Your task to perform on an android device: Show the shopping cart on ebay. Add "dell alienware" to the cart on ebay Image 0: 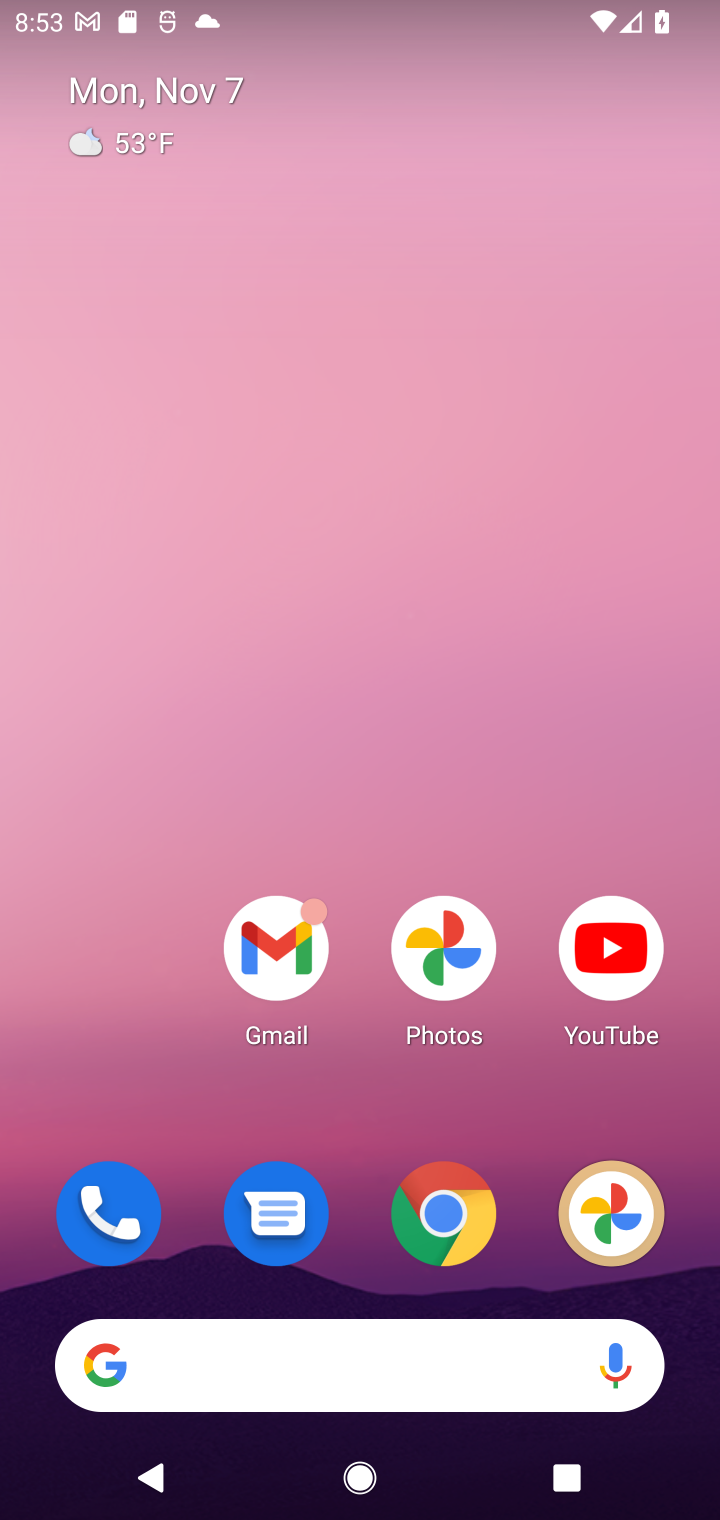
Step 0: click (434, 1244)
Your task to perform on an android device: Show the shopping cart on ebay. Add "dell alienware" to the cart on ebay Image 1: 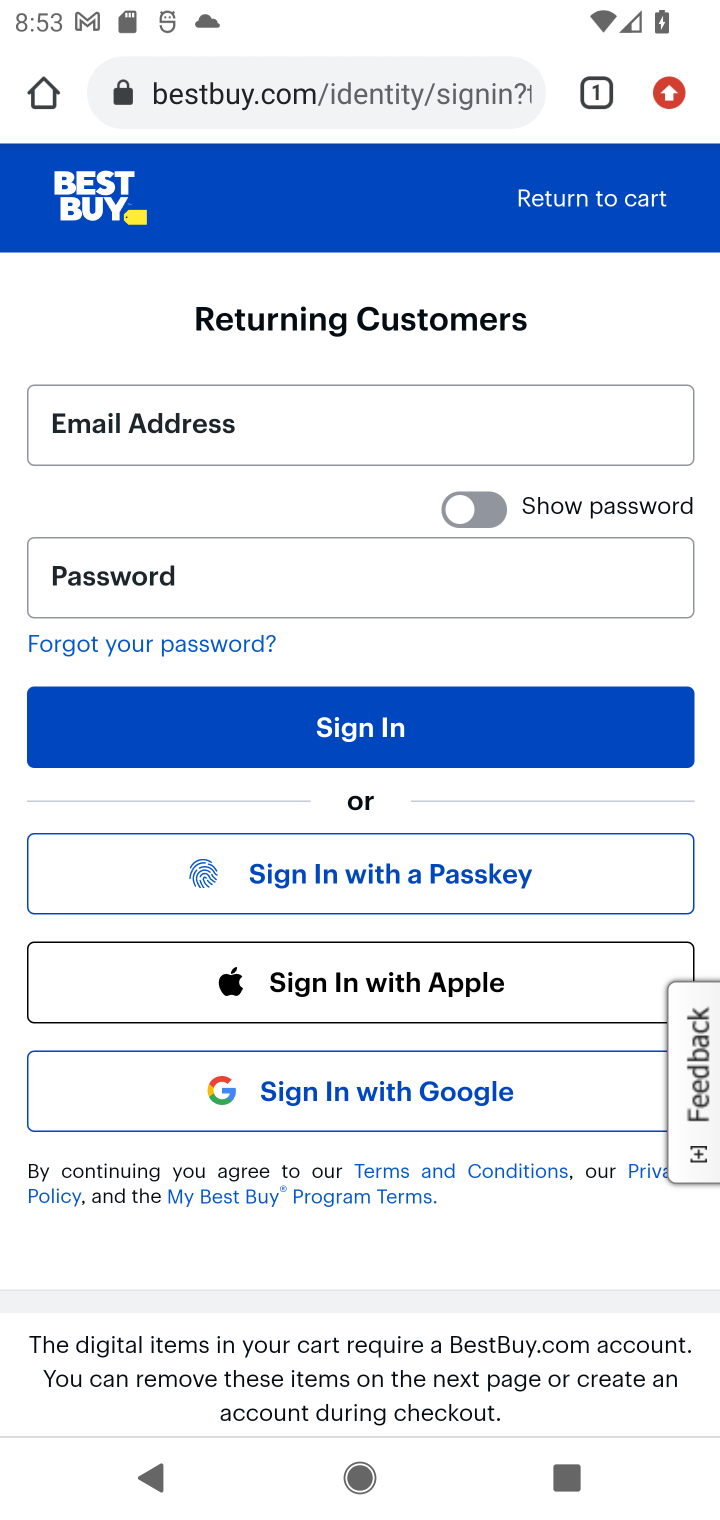
Step 1: click (324, 80)
Your task to perform on an android device: Show the shopping cart on ebay. Add "dell alienware" to the cart on ebay Image 2: 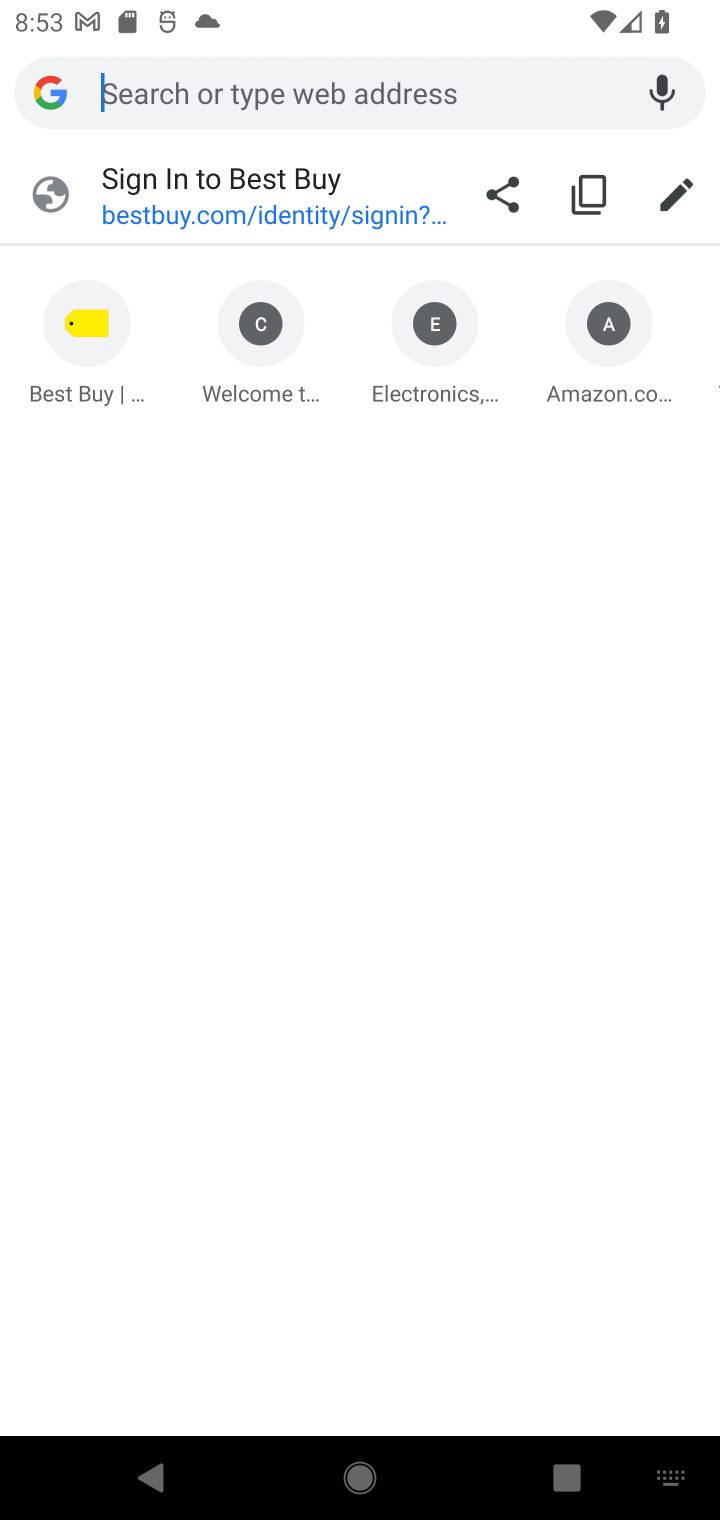
Step 2: type "ebay.com"
Your task to perform on an android device: Show the shopping cart on ebay. Add "dell alienware" to the cart on ebay Image 3: 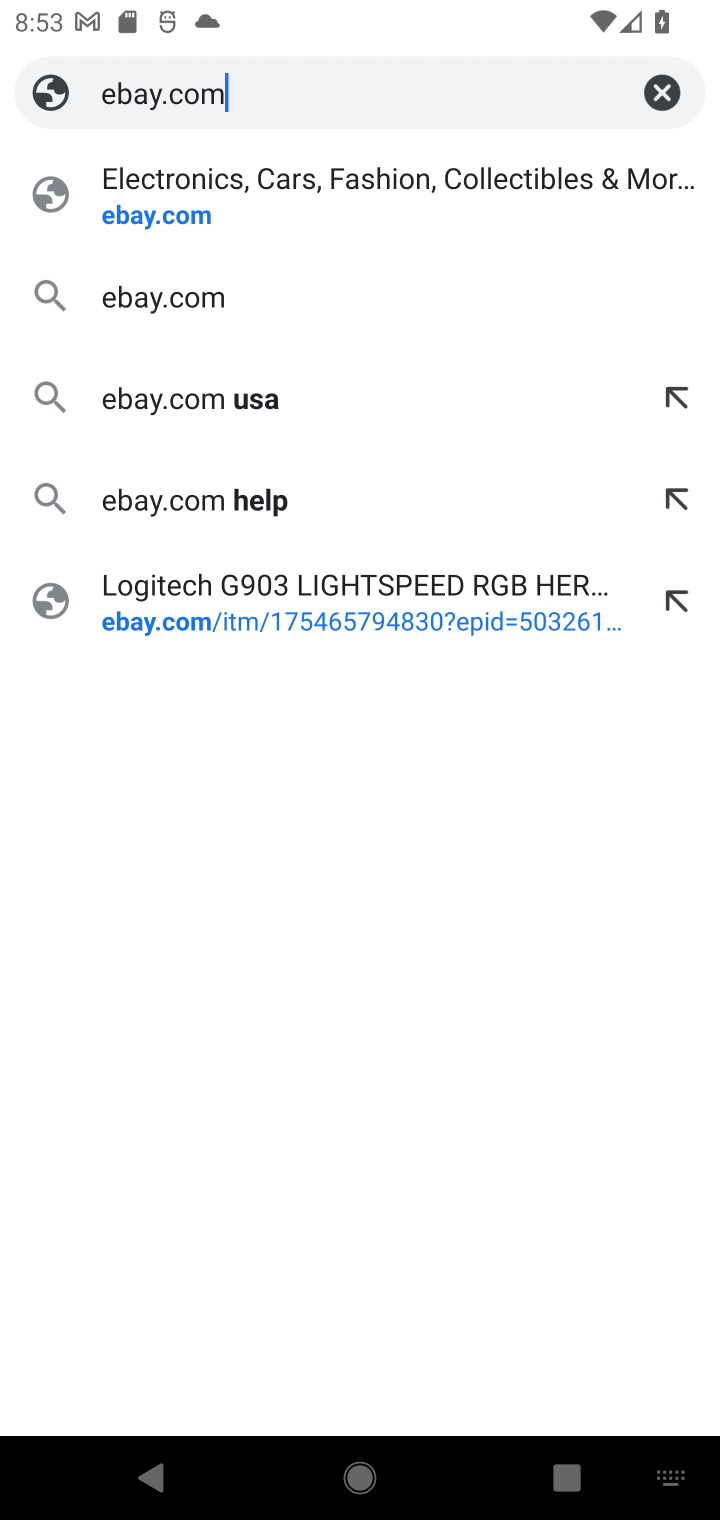
Step 3: click (117, 231)
Your task to perform on an android device: Show the shopping cart on ebay. Add "dell alienware" to the cart on ebay Image 4: 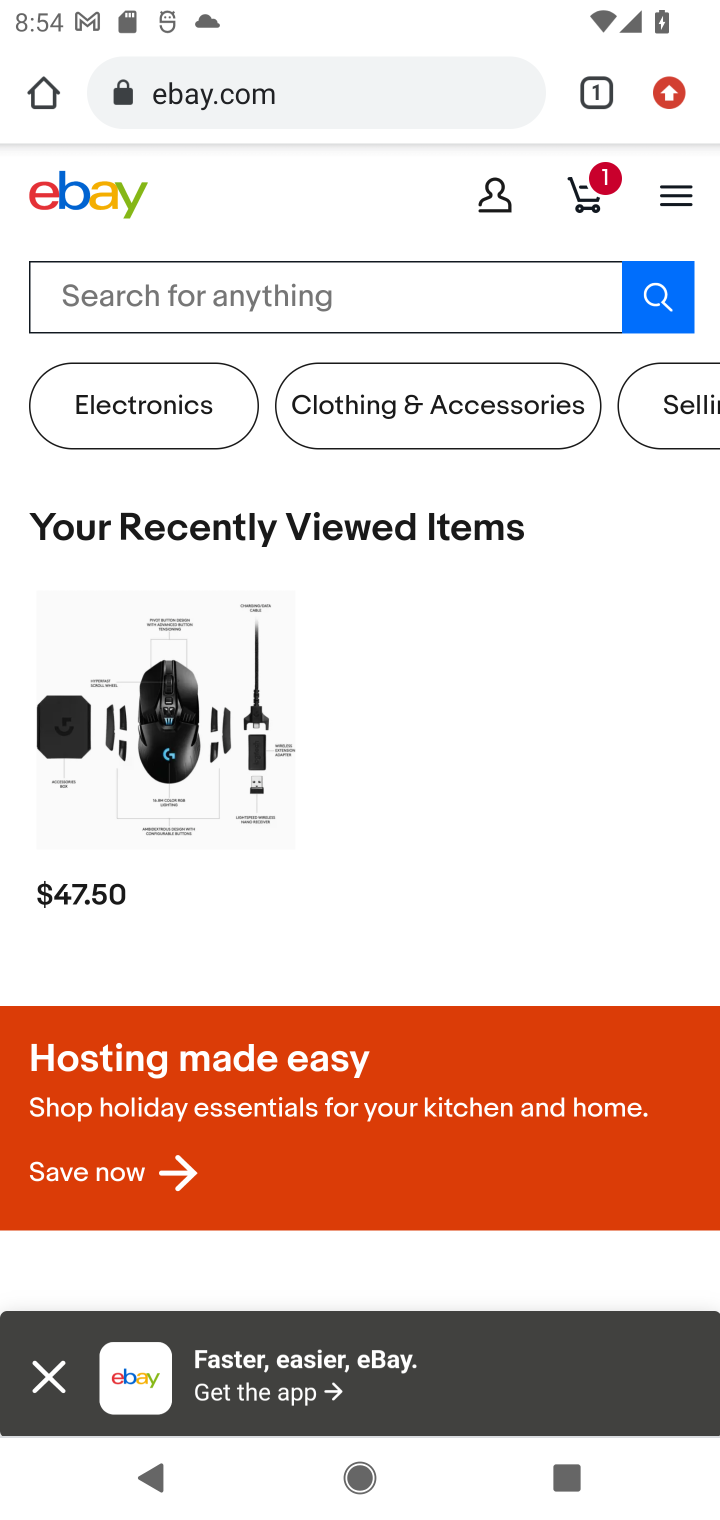
Step 4: click (246, 306)
Your task to perform on an android device: Show the shopping cart on ebay. Add "dell alienware" to the cart on ebay Image 5: 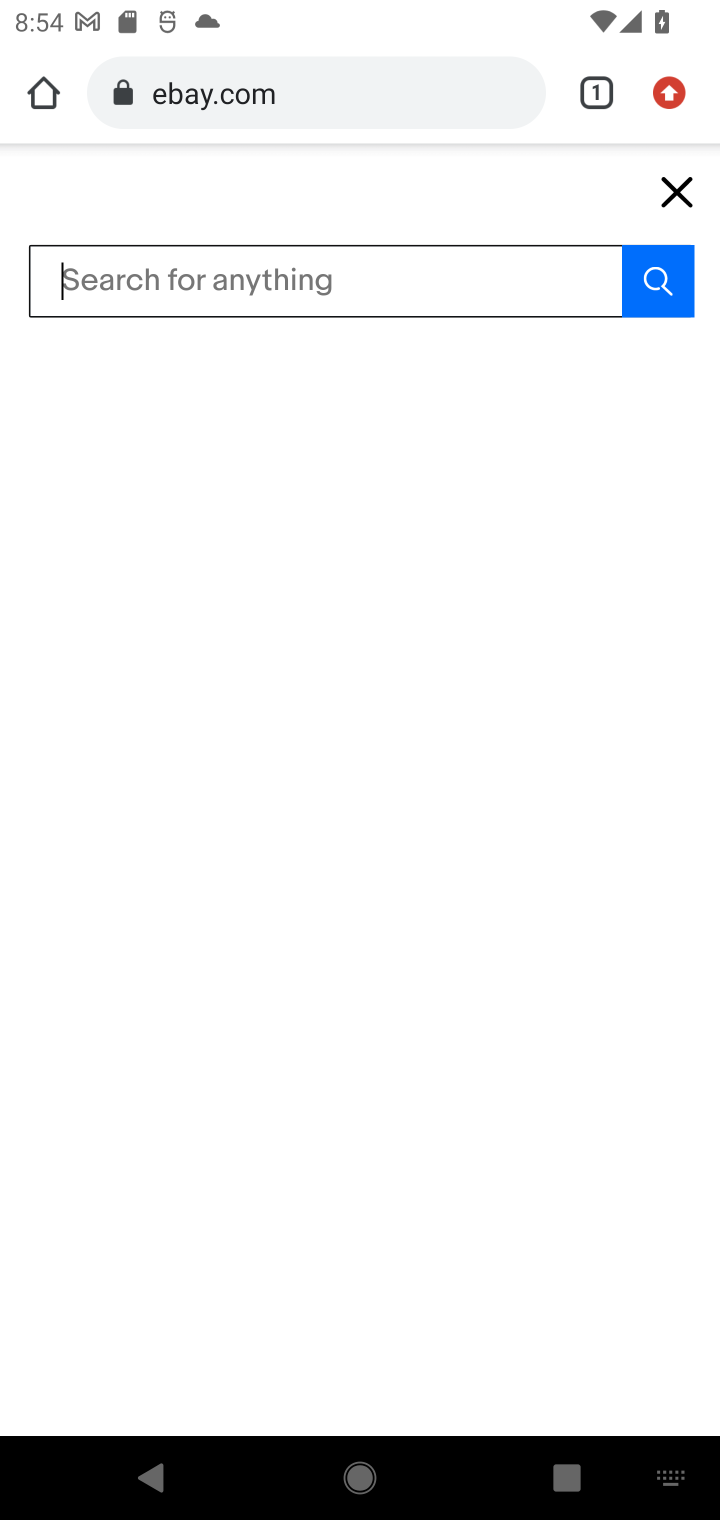
Step 5: type "dell alienware"
Your task to perform on an android device: Show the shopping cart on ebay. Add "dell alienware" to the cart on ebay Image 6: 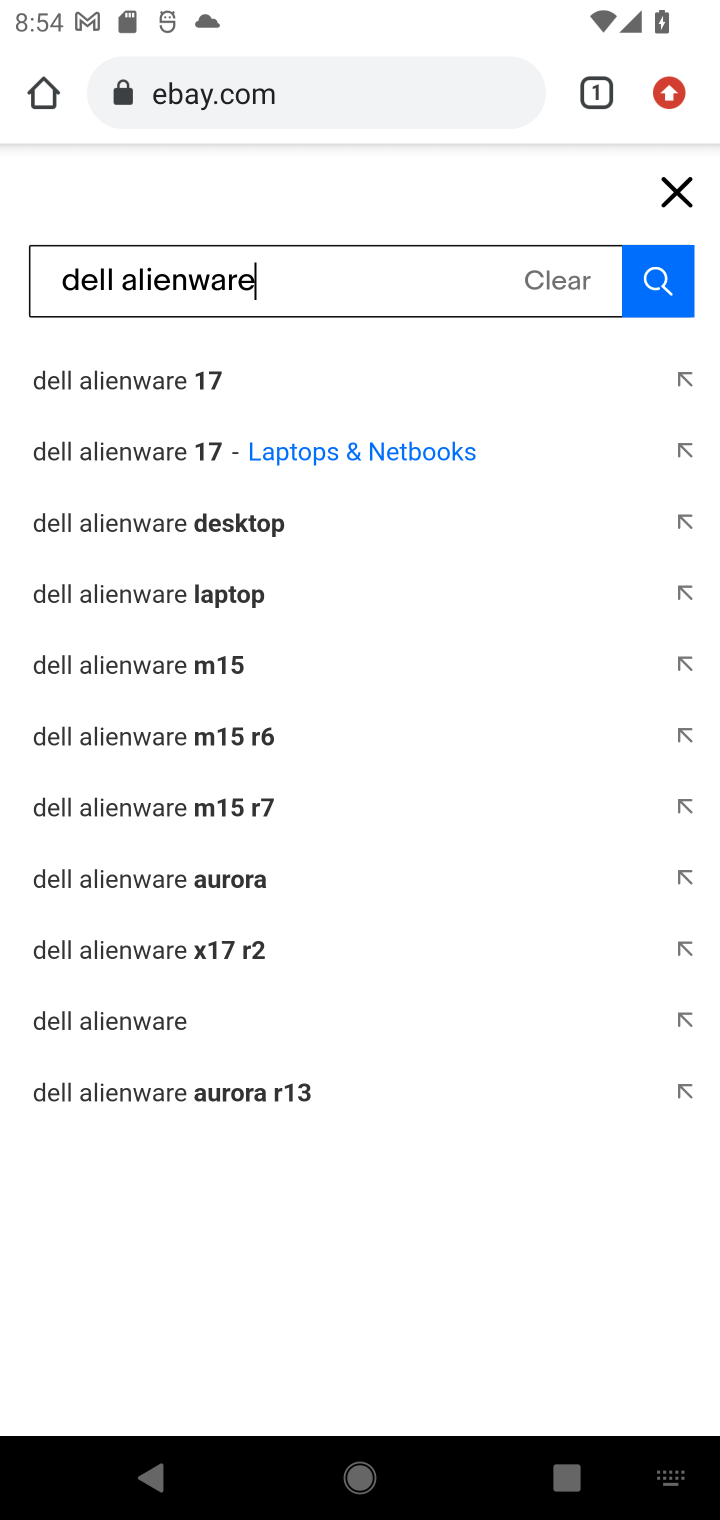
Step 6: click (94, 1031)
Your task to perform on an android device: Show the shopping cart on ebay. Add "dell alienware" to the cart on ebay Image 7: 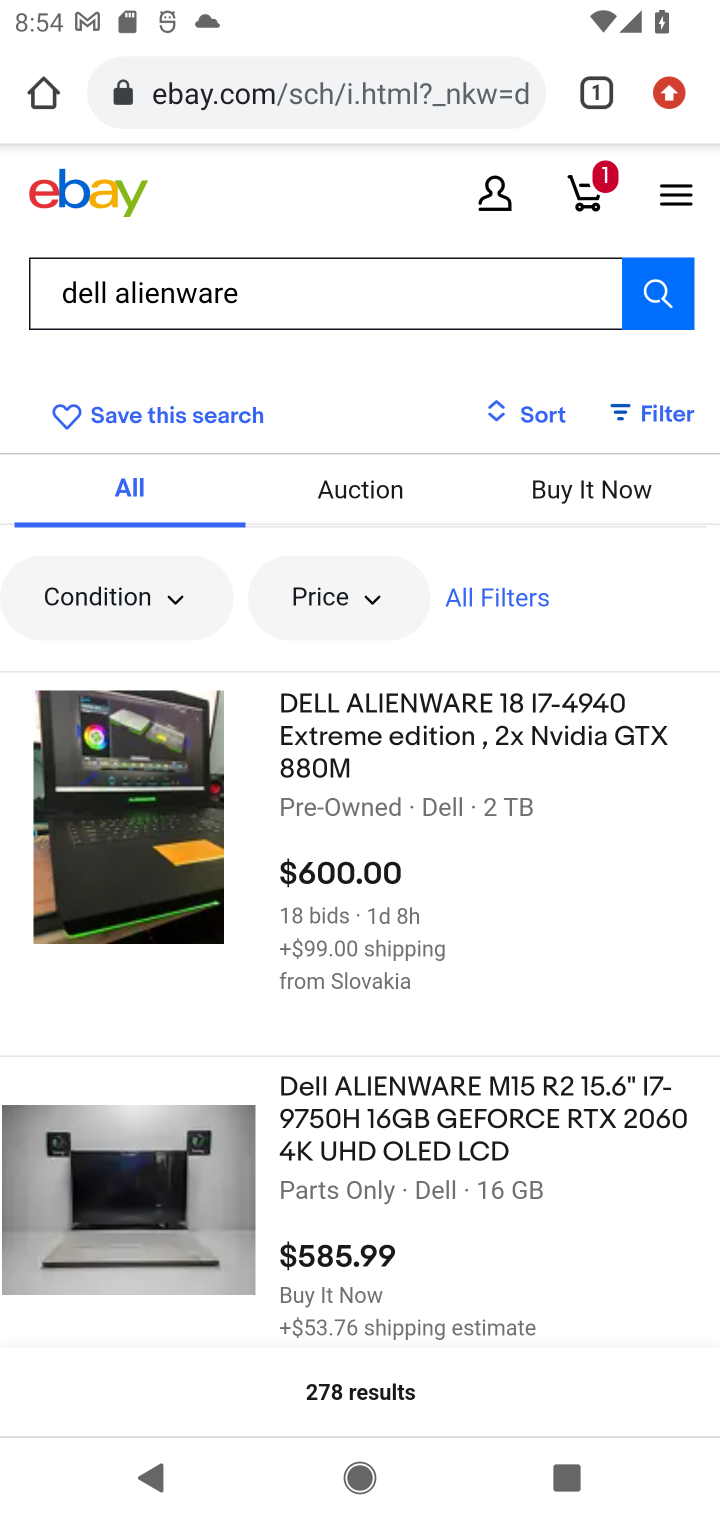
Step 7: click (184, 838)
Your task to perform on an android device: Show the shopping cart on ebay. Add "dell alienware" to the cart on ebay Image 8: 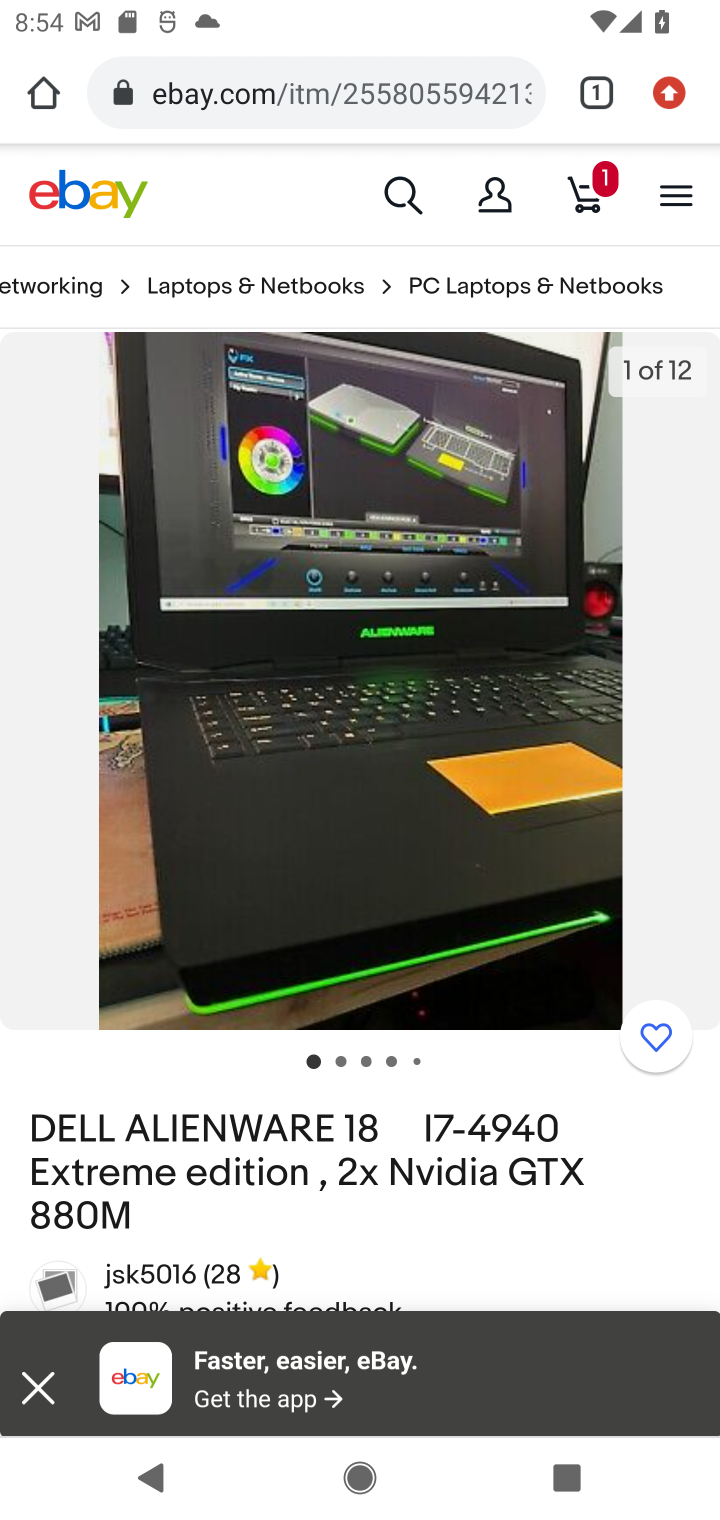
Step 8: drag from (377, 1109) to (392, 617)
Your task to perform on an android device: Show the shopping cart on ebay. Add "dell alienware" to the cart on ebay Image 9: 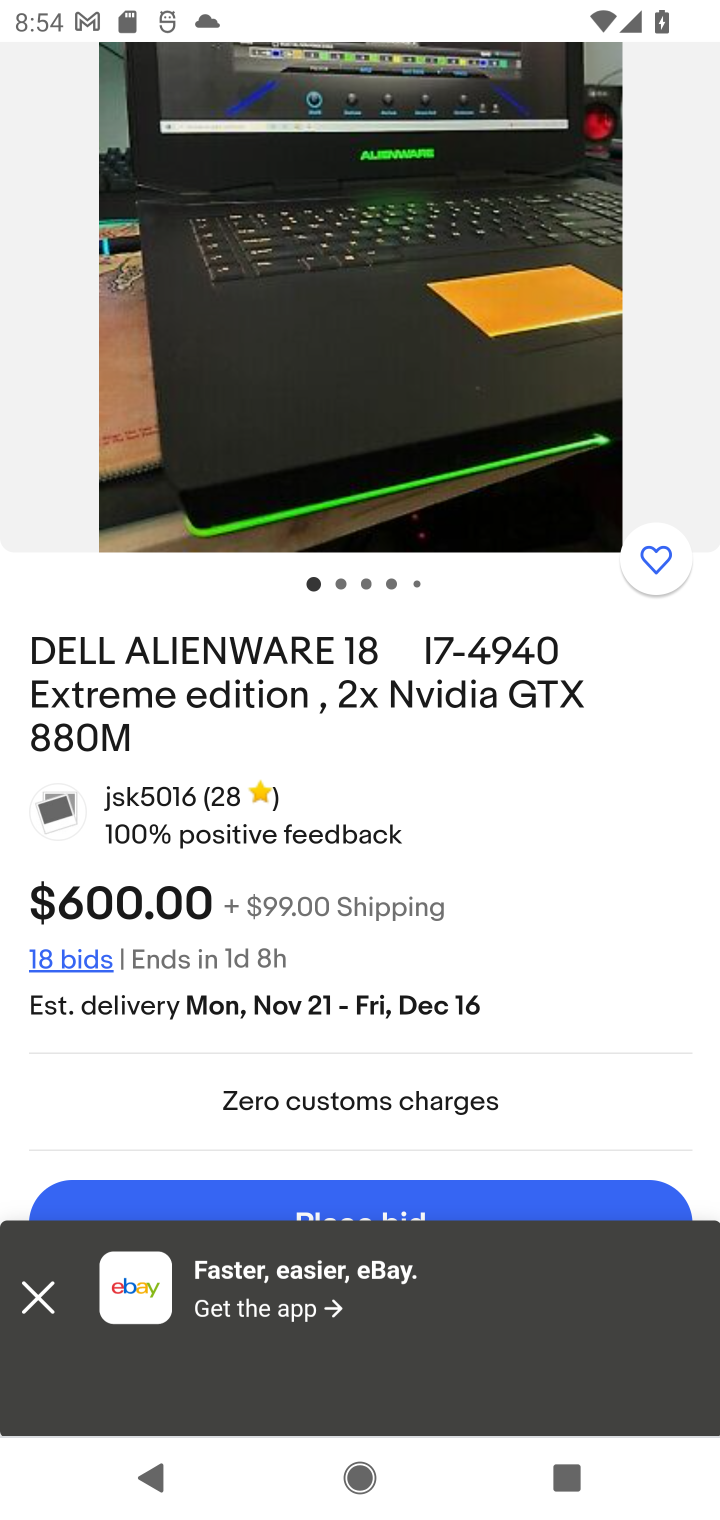
Step 9: drag from (492, 1145) to (456, 605)
Your task to perform on an android device: Show the shopping cart on ebay. Add "dell alienware" to the cart on ebay Image 10: 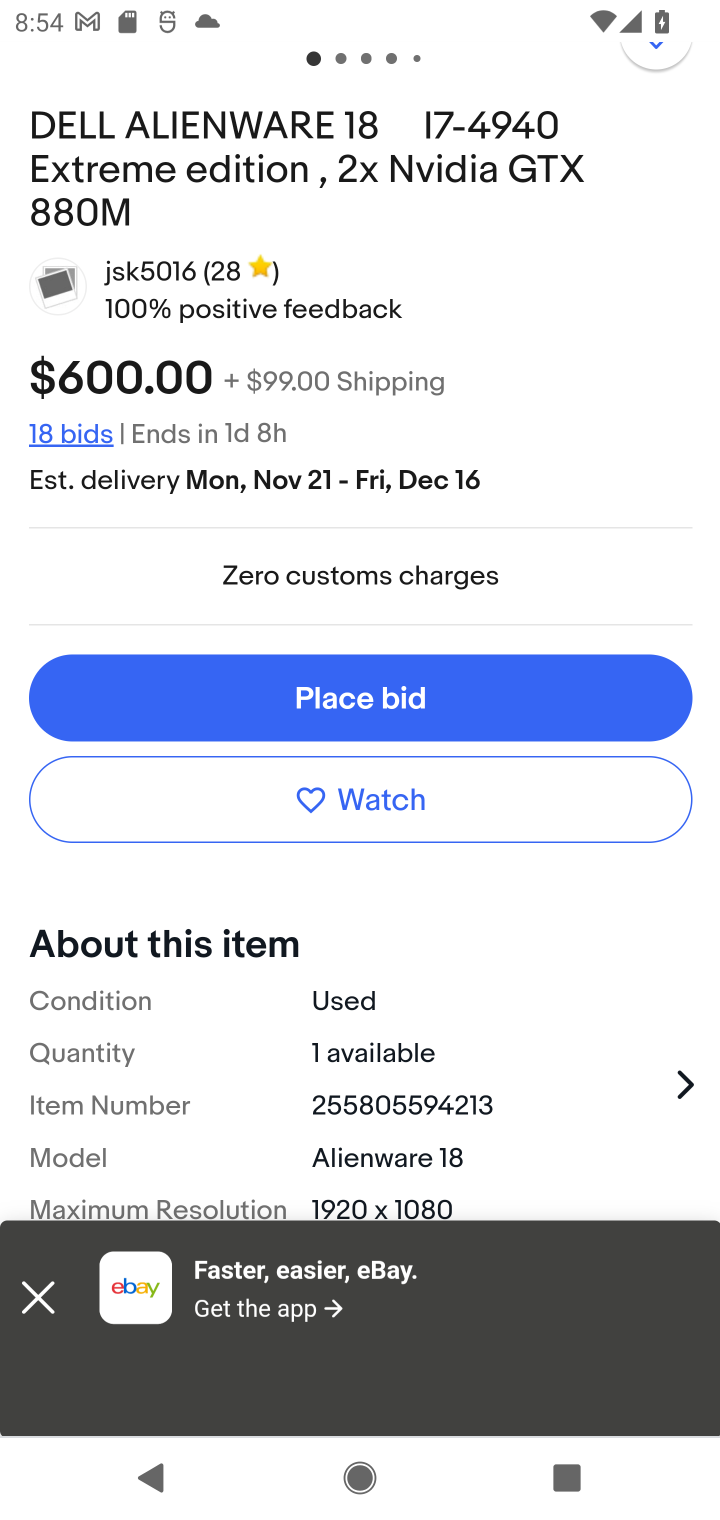
Step 10: drag from (411, 522) to (414, 1123)
Your task to perform on an android device: Show the shopping cart on ebay. Add "dell alienware" to the cart on ebay Image 11: 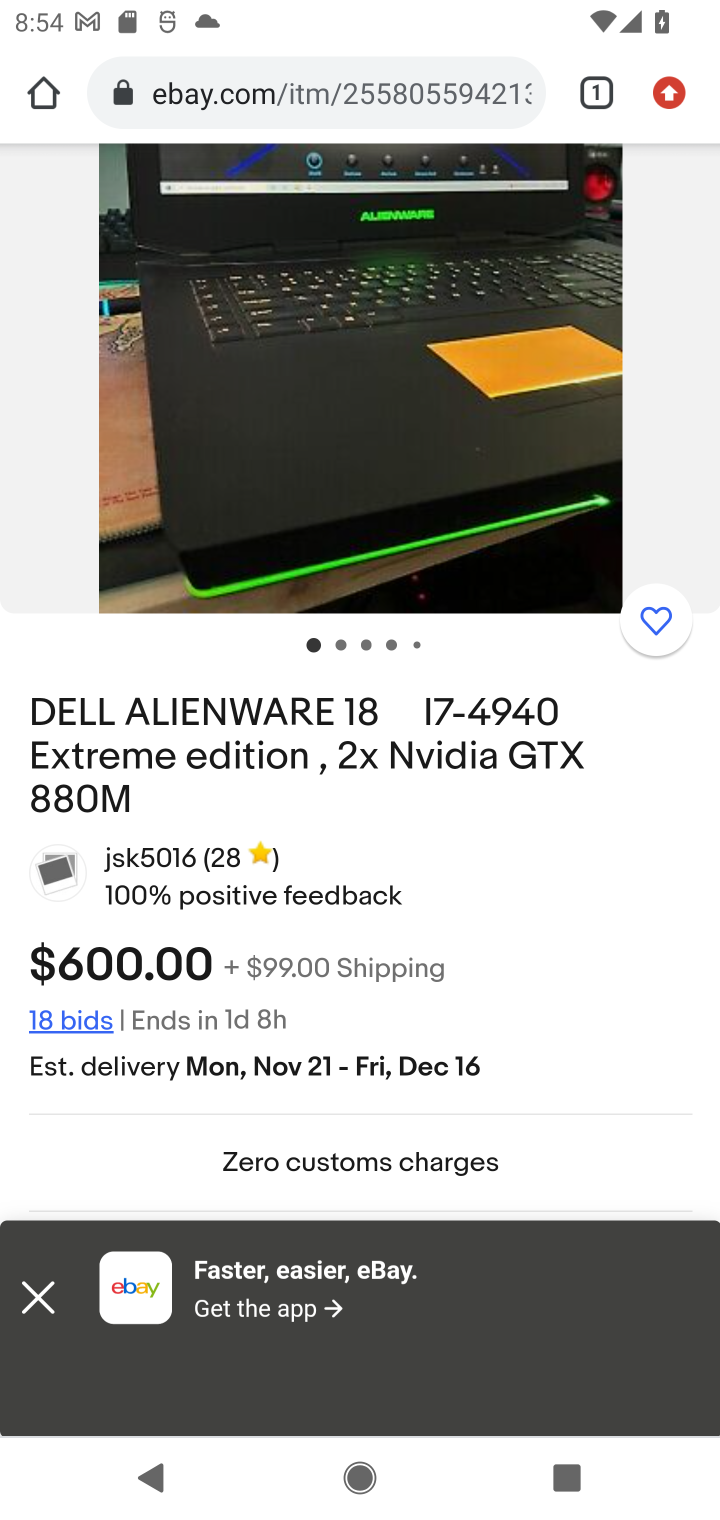
Step 11: press back button
Your task to perform on an android device: Show the shopping cart on ebay. Add "dell alienware" to the cart on ebay Image 12: 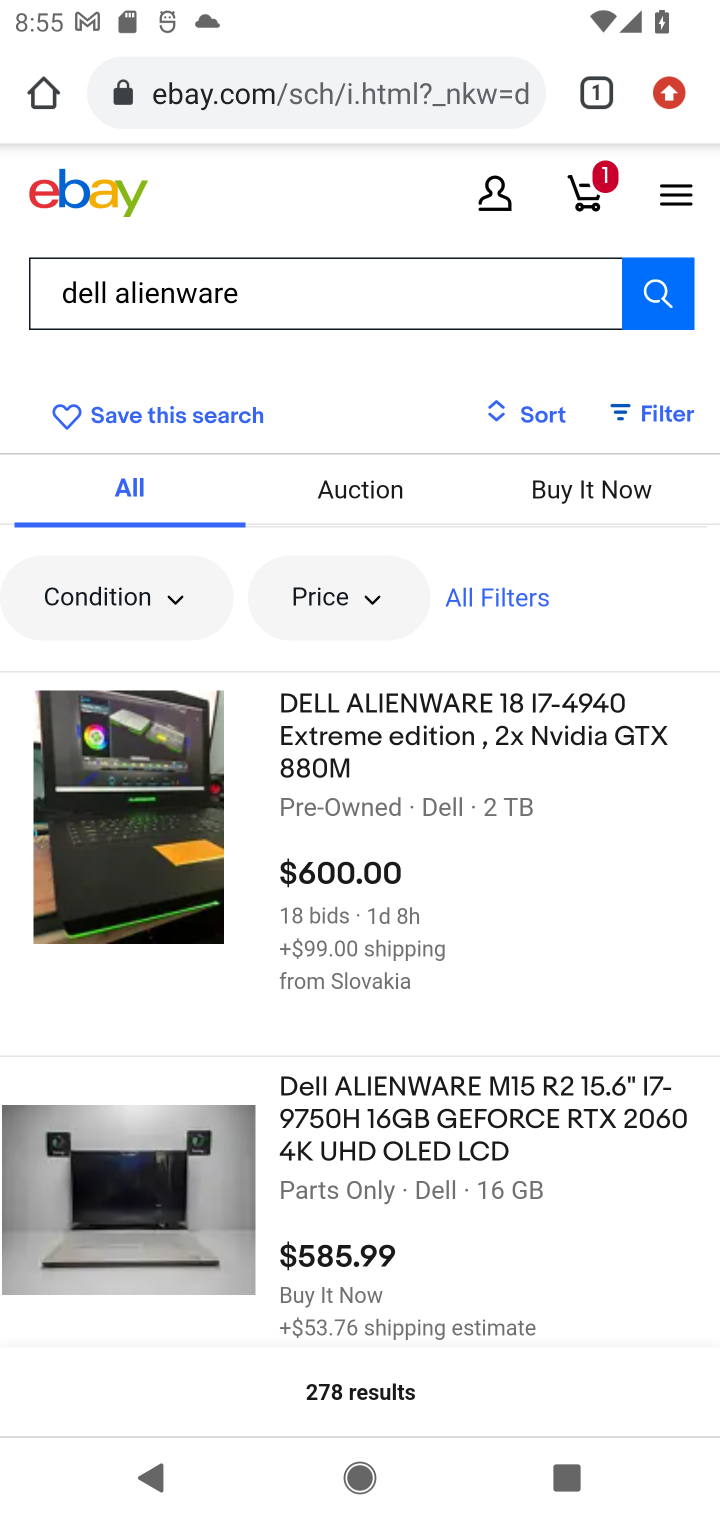
Step 12: click (163, 1213)
Your task to perform on an android device: Show the shopping cart on ebay. Add "dell alienware" to the cart on ebay Image 13: 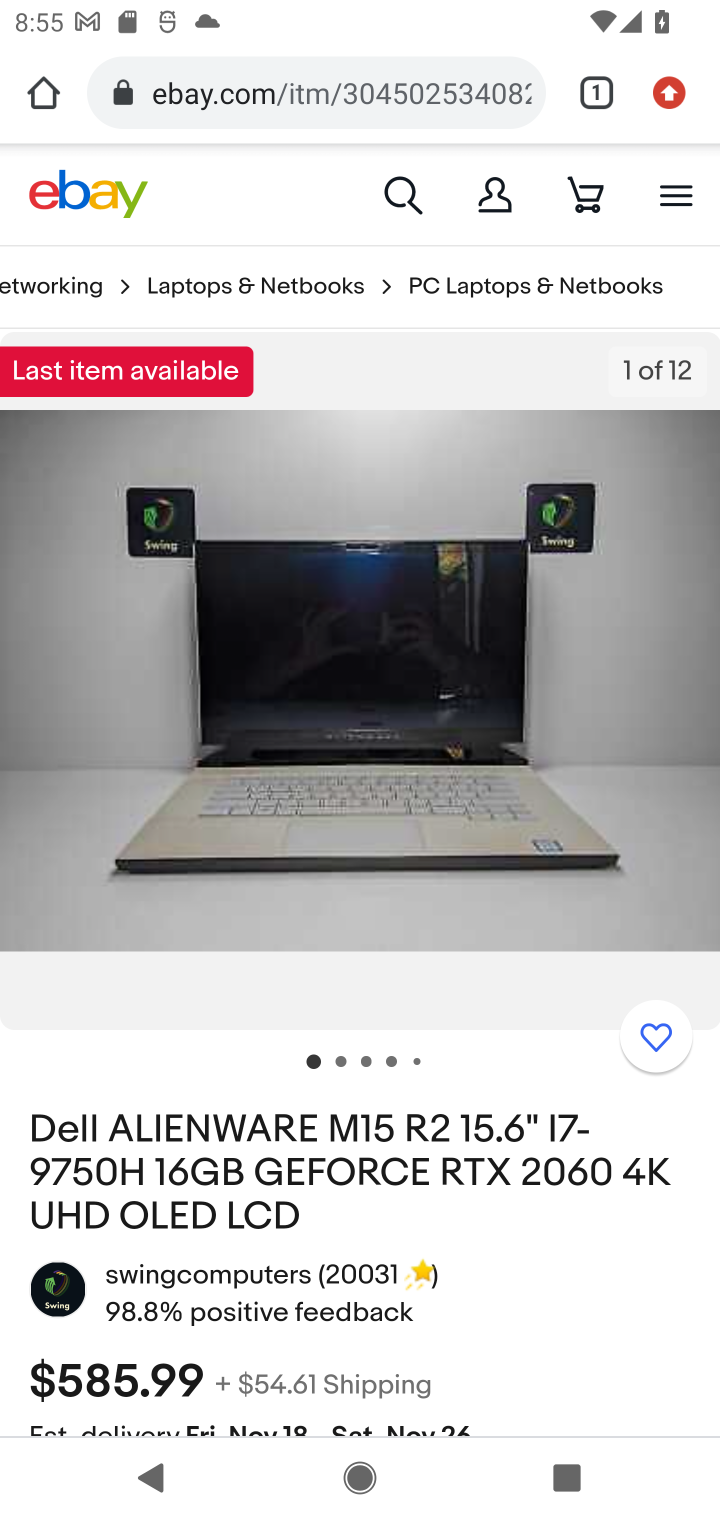
Step 13: drag from (357, 1225) to (377, 576)
Your task to perform on an android device: Show the shopping cart on ebay. Add "dell alienware" to the cart on ebay Image 14: 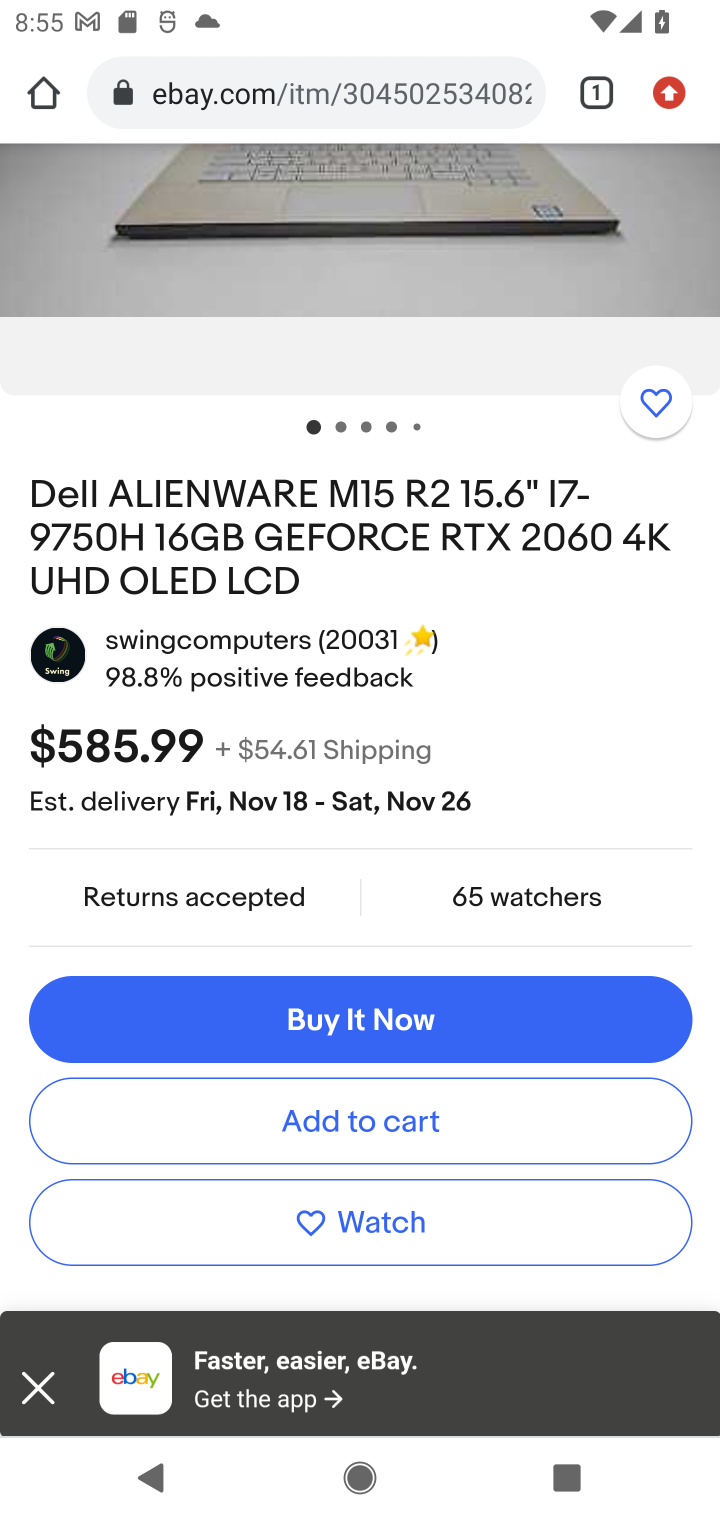
Step 14: click (375, 1113)
Your task to perform on an android device: Show the shopping cart on ebay. Add "dell alienware" to the cart on ebay Image 15: 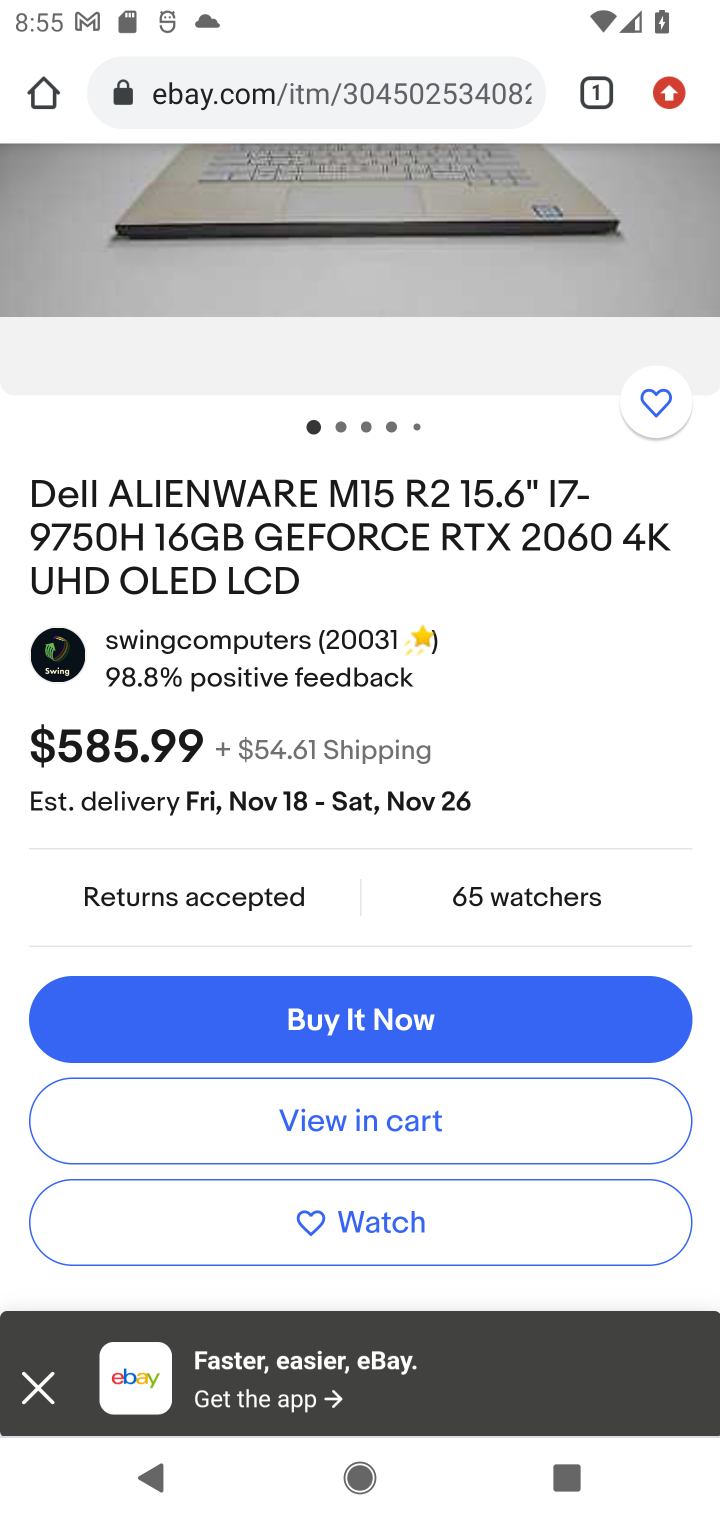
Step 15: click (360, 1121)
Your task to perform on an android device: Show the shopping cart on ebay. Add "dell alienware" to the cart on ebay Image 16: 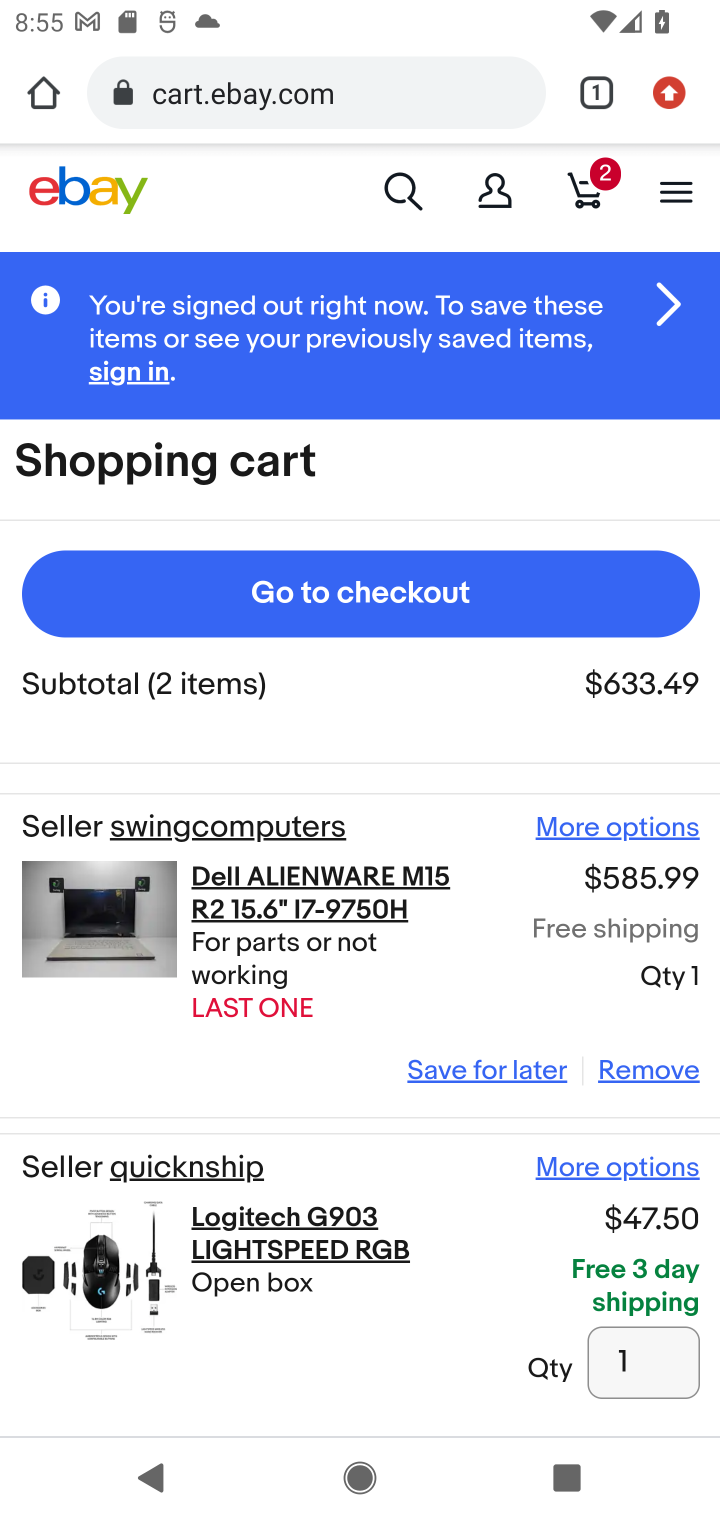
Step 16: task complete